Your task to perform on an android device: change the clock style Image 0: 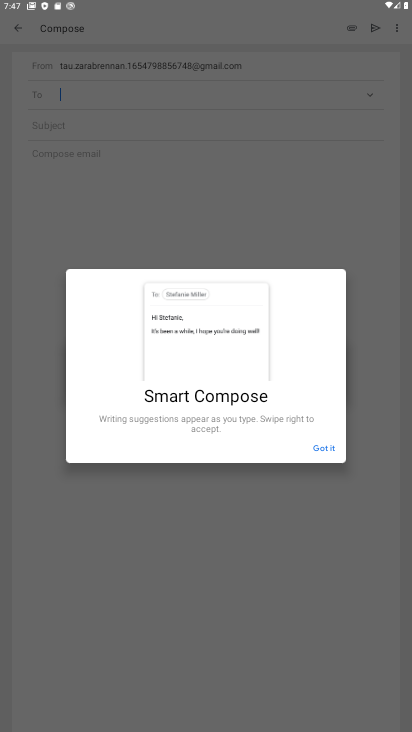
Step 0: press home button
Your task to perform on an android device: change the clock style Image 1: 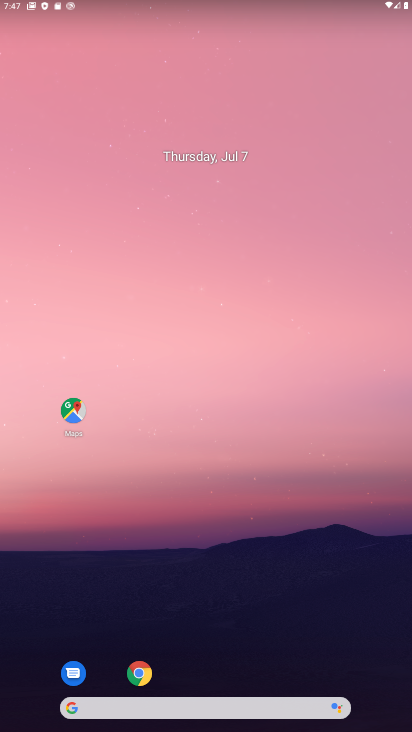
Step 1: drag from (202, 678) to (95, 88)
Your task to perform on an android device: change the clock style Image 2: 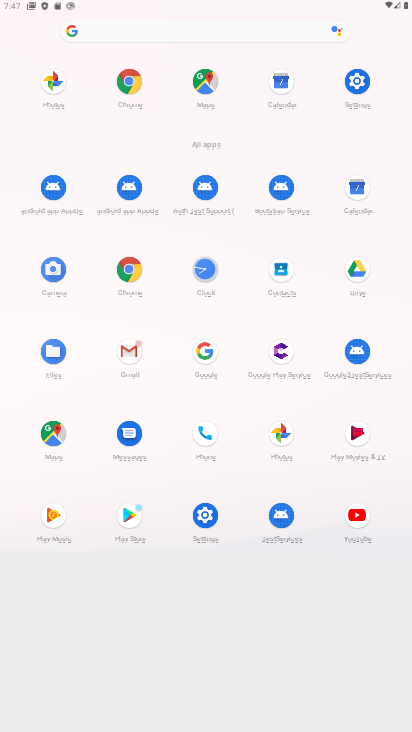
Step 2: click (203, 266)
Your task to perform on an android device: change the clock style Image 3: 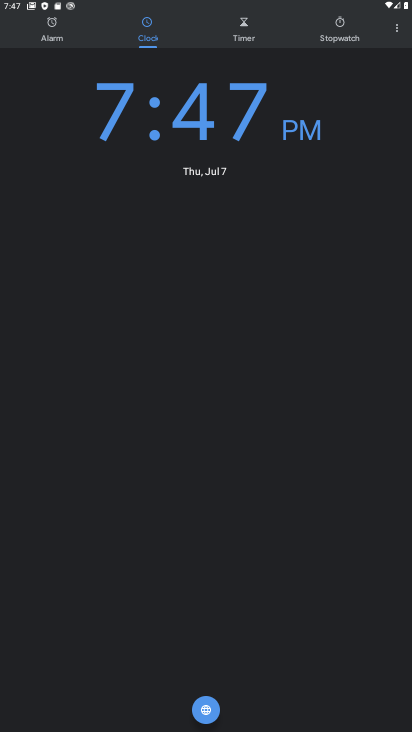
Step 3: click (392, 26)
Your task to perform on an android device: change the clock style Image 4: 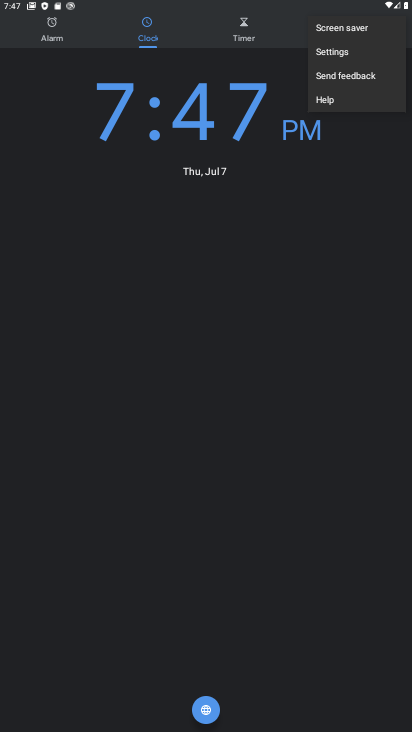
Step 4: click (338, 50)
Your task to perform on an android device: change the clock style Image 5: 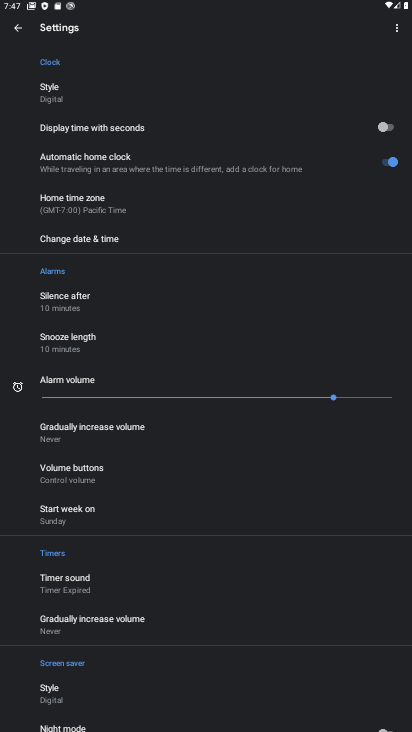
Step 5: click (58, 104)
Your task to perform on an android device: change the clock style Image 6: 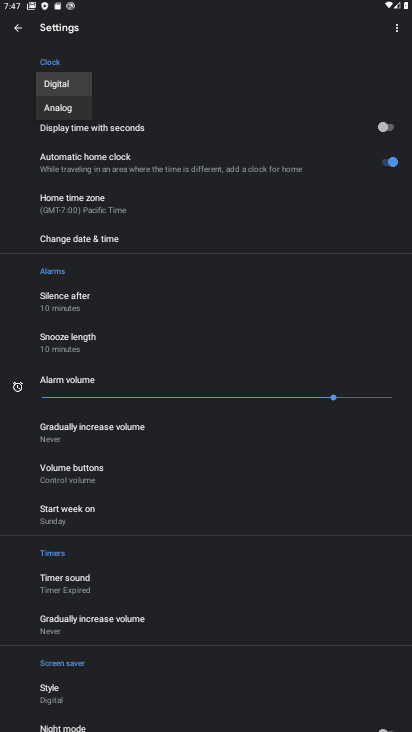
Step 6: click (65, 108)
Your task to perform on an android device: change the clock style Image 7: 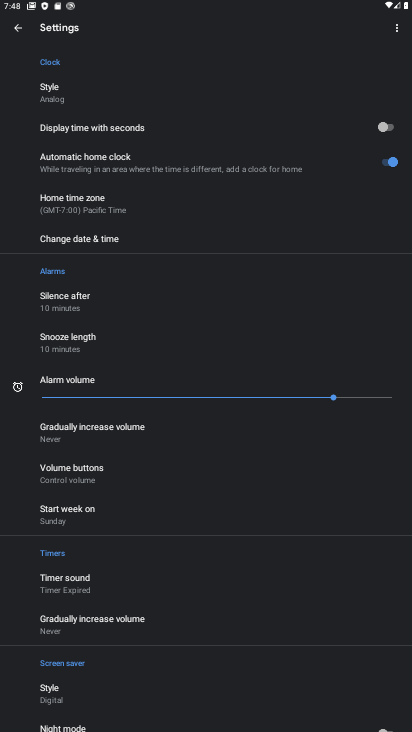
Step 7: task complete